Your task to perform on an android device: turn pop-ups off in chrome Image 0: 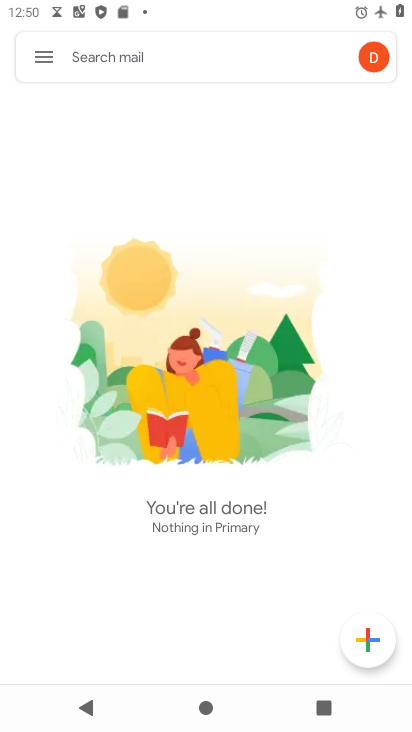
Step 0: press home button
Your task to perform on an android device: turn pop-ups off in chrome Image 1: 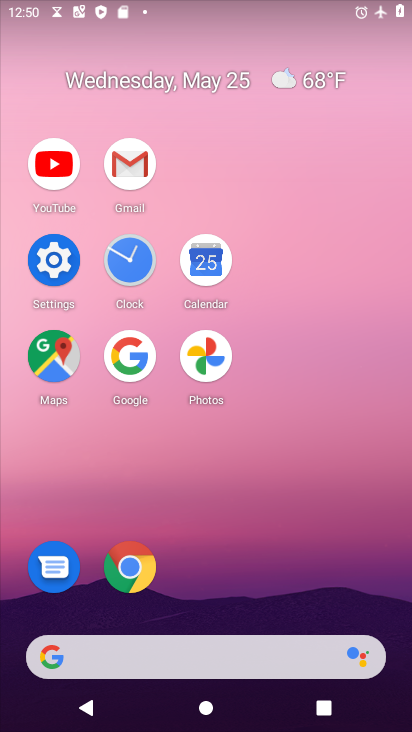
Step 1: click (133, 556)
Your task to perform on an android device: turn pop-ups off in chrome Image 2: 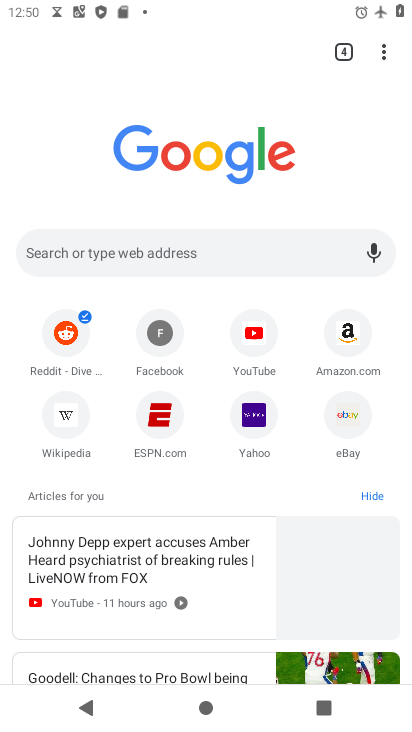
Step 2: click (379, 58)
Your task to perform on an android device: turn pop-ups off in chrome Image 3: 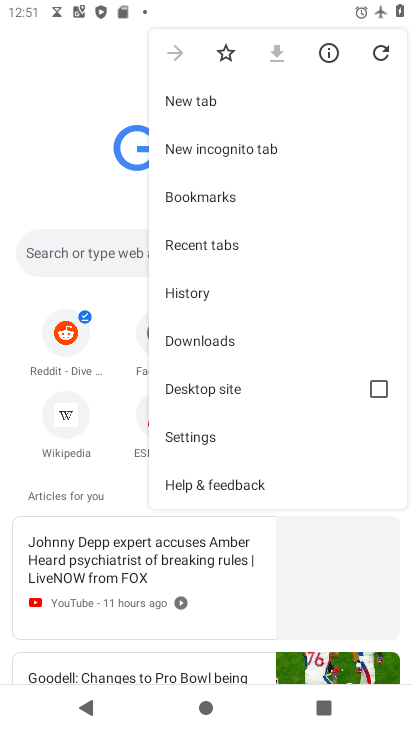
Step 3: click (231, 434)
Your task to perform on an android device: turn pop-ups off in chrome Image 4: 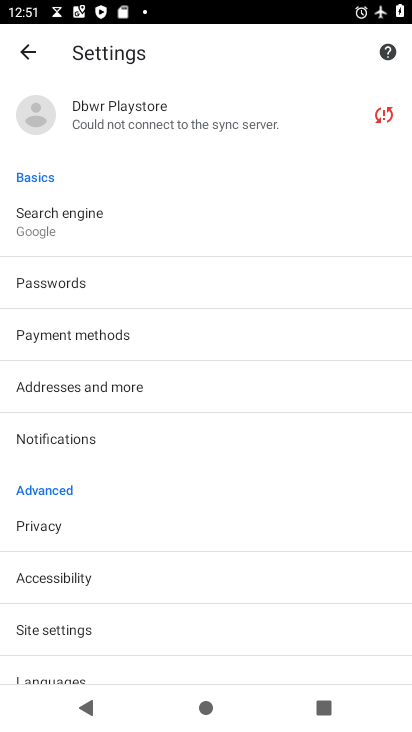
Step 4: drag from (128, 607) to (196, 258)
Your task to perform on an android device: turn pop-ups off in chrome Image 5: 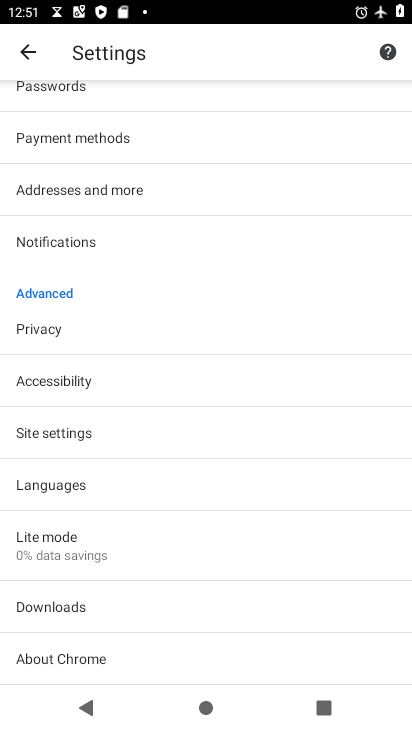
Step 5: click (131, 438)
Your task to perform on an android device: turn pop-ups off in chrome Image 6: 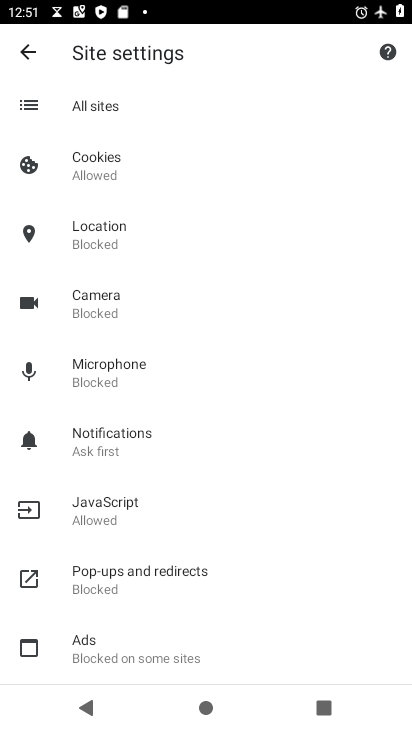
Step 6: click (157, 574)
Your task to perform on an android device: turn pop-ups off in chrome Image 7: 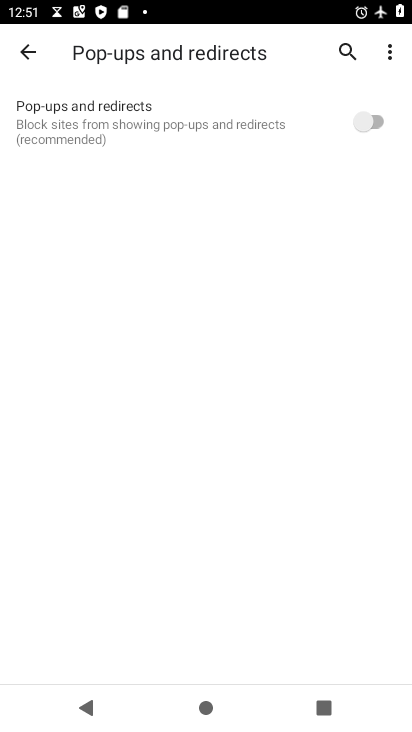
Step 7: task complete